Your task to perform on an android device: Check the weather Image 0: 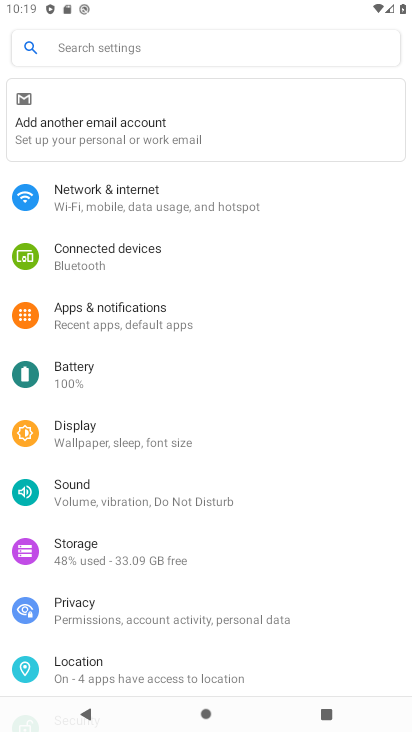
Step 0: press home button
Your task to perform on an android device: Check the weather Image 1: 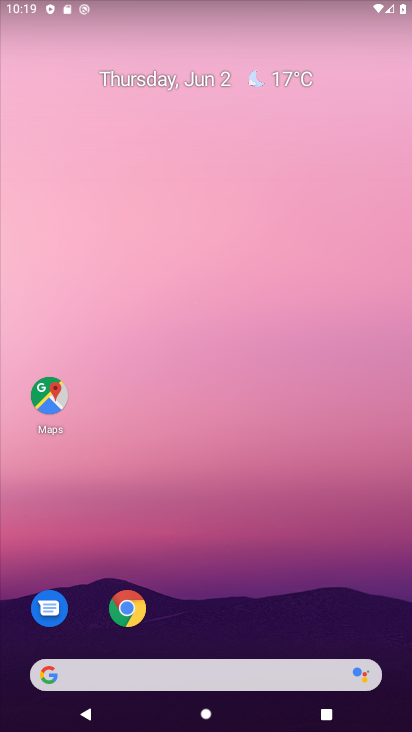
Step 1: click (286, 78)
Your task to perform on an android device: Check the weather Image 2: 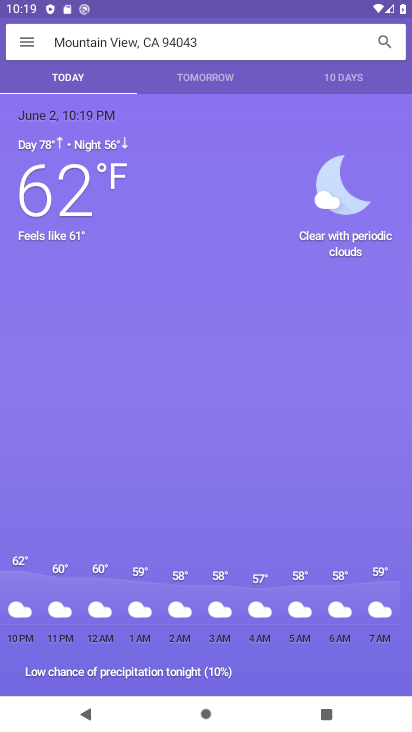
Step 2: task complete